Your task to perform on an android device: create a new album in the google photos Image 0: 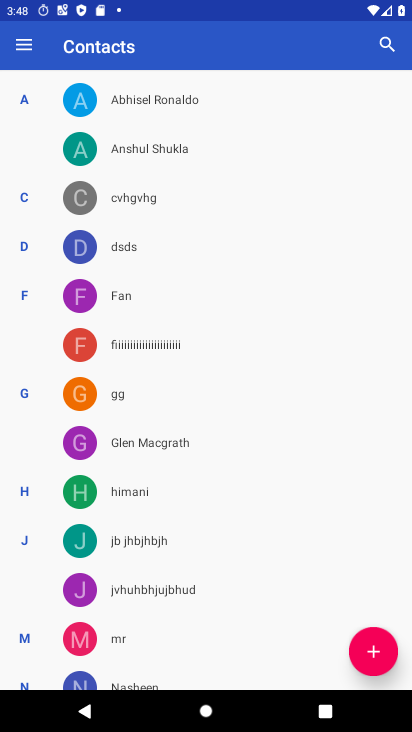
Step 0: press home button
Your task to perform on an android device: create a new album in the google photos Image 1: 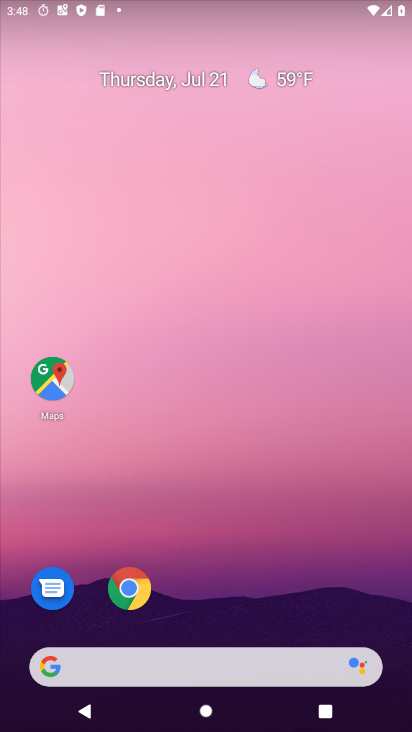
Step 1: drag from (208, 596) to (193, 307)
Your task to perform on an android device: create a new album in the google photos Image 2: 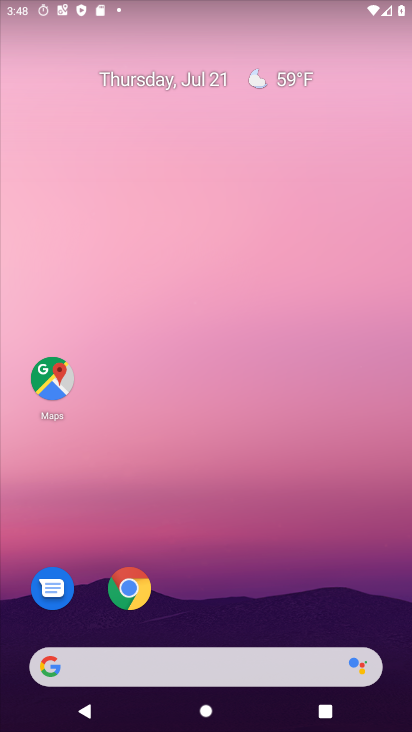
Step 2: drag from (199, 584) to (226, 250)
Your task to perform on an android device: create a new album in the google photos Image 3: 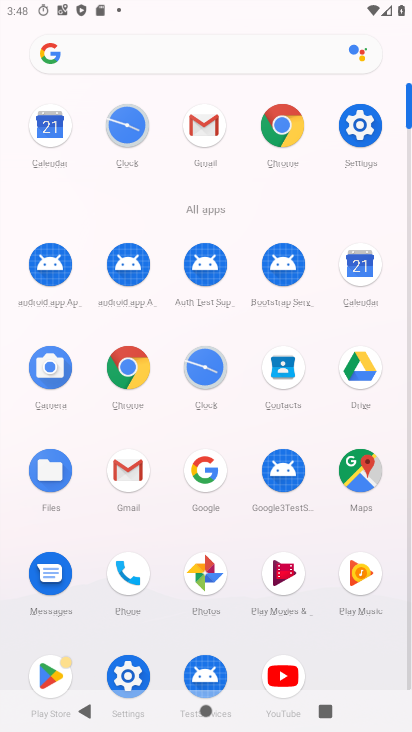
Step 3: click (201, 585)
Your task to perform on an android device: create a new album in the google photos Image 4: 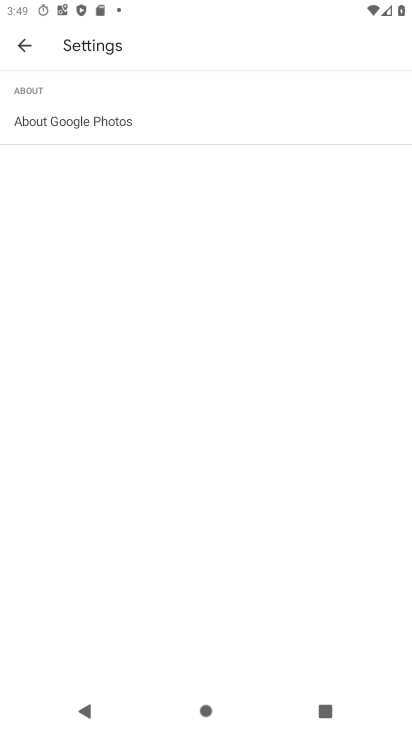
Step 4: click (19, 52)
Your task to perform on an android device: create a new album in the google photos Image 5: 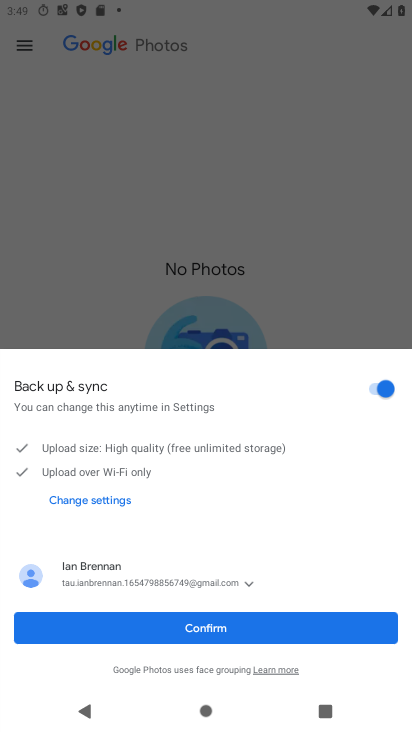
Step 5: click (235, 632)
Your task to perform on an android device: create a new album in the google photos Image 6: 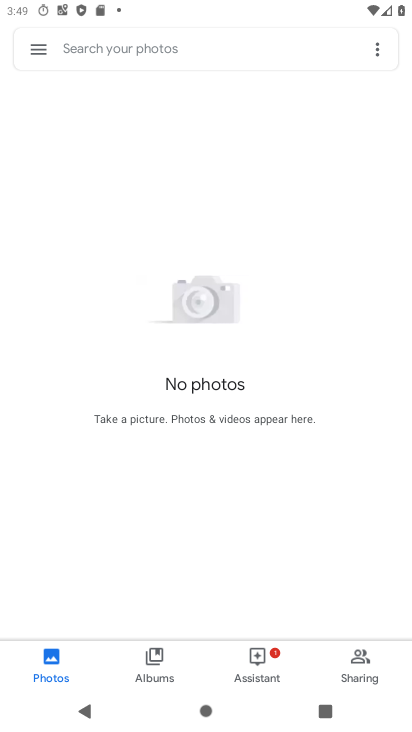
Step 6: click (155, 662)
Your task to perform on an android device: create a new album in the google photos Image 7: 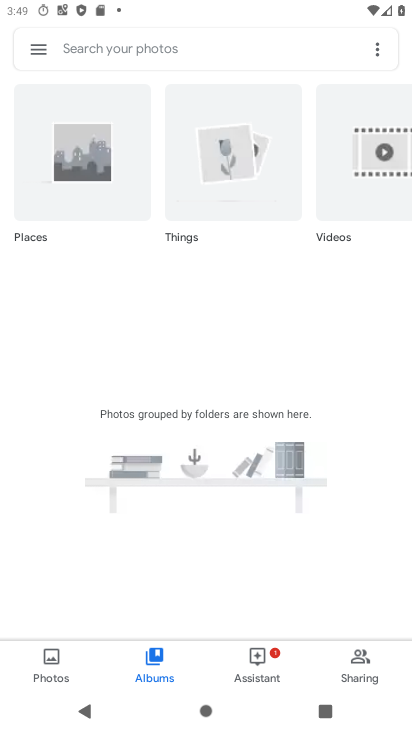
Step 7: task complete